Your task to perform on an android device: Open Google Chrome Image 0: 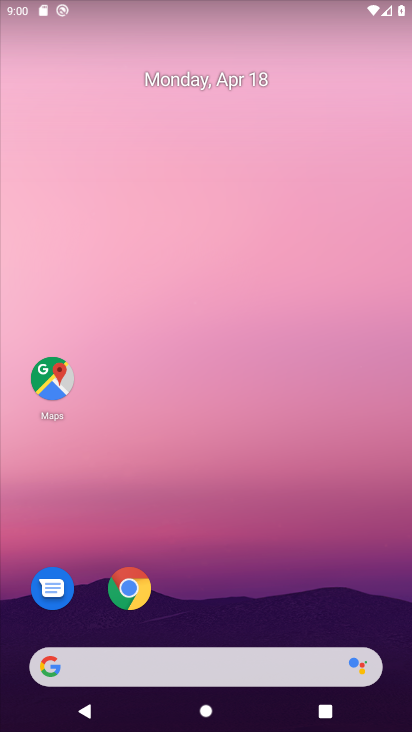
Step 0: drag from (272, 567) to (314, 90)
Your task to perform on an android device: Open Google Chrome Image 1: 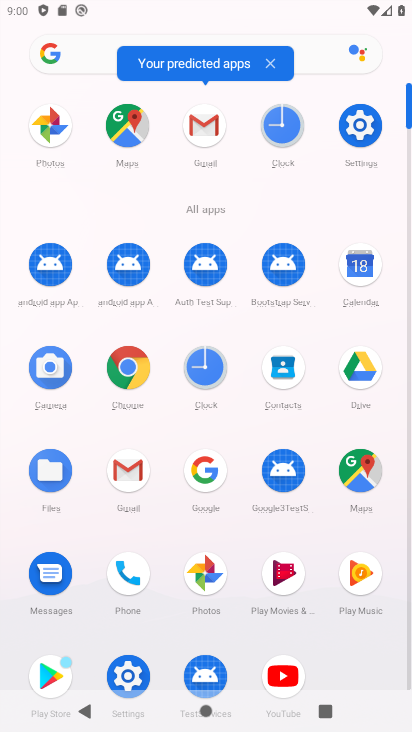
Step 1: click (127, 368)
Your task to perform on an android device: Open Google Chrome Image 2: 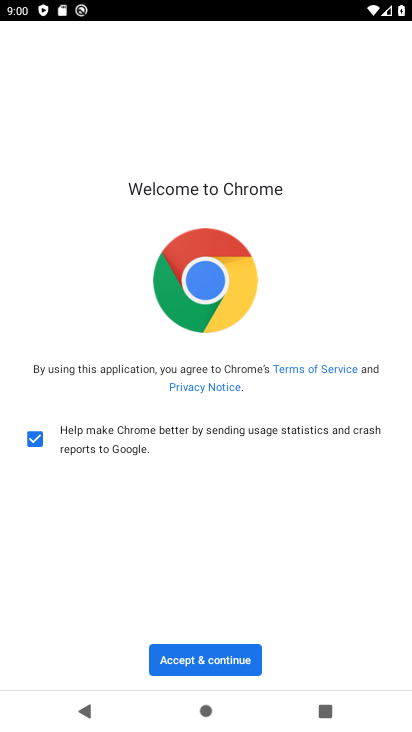
Step 2: click (195, 655)
Your task to perform on an android device: Open Google Chrome Image 3: 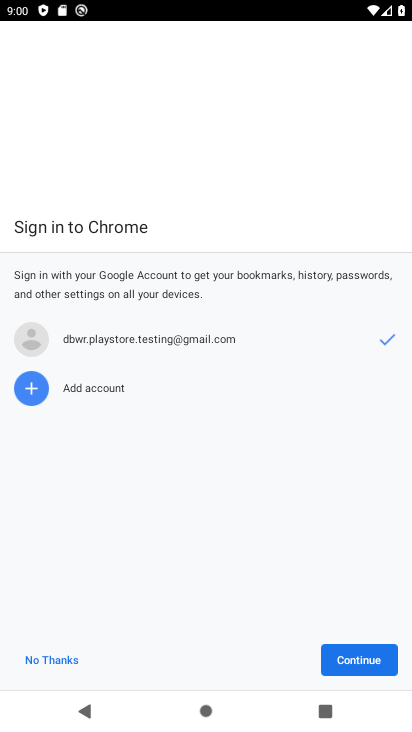
Step 3: click (337, 659)
Your task to perform on an android device: Open Google Chrome Image 4: 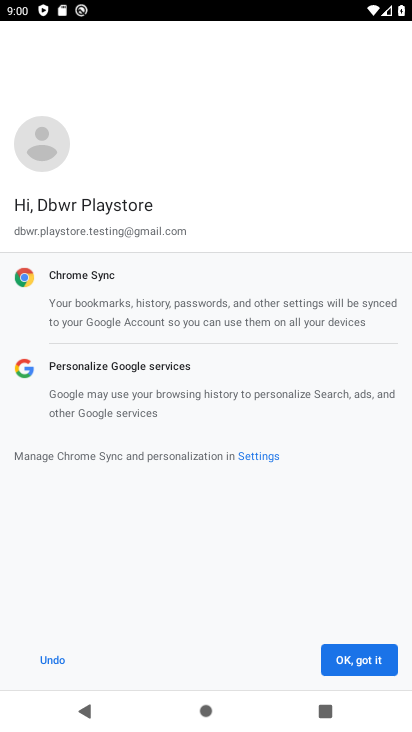
Step 4: click (362, 653)
Your task to perform on an android device: Open Google Chrome Image 5: 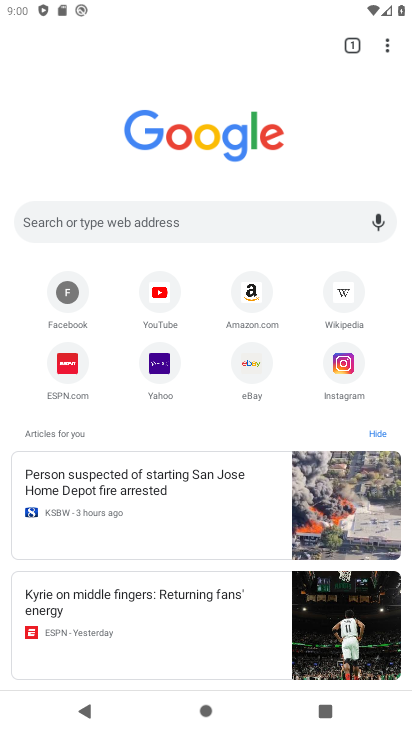
Step 5: task complete